Your task to perform on an android device: uninstall "Facebook Lite" Image 0: 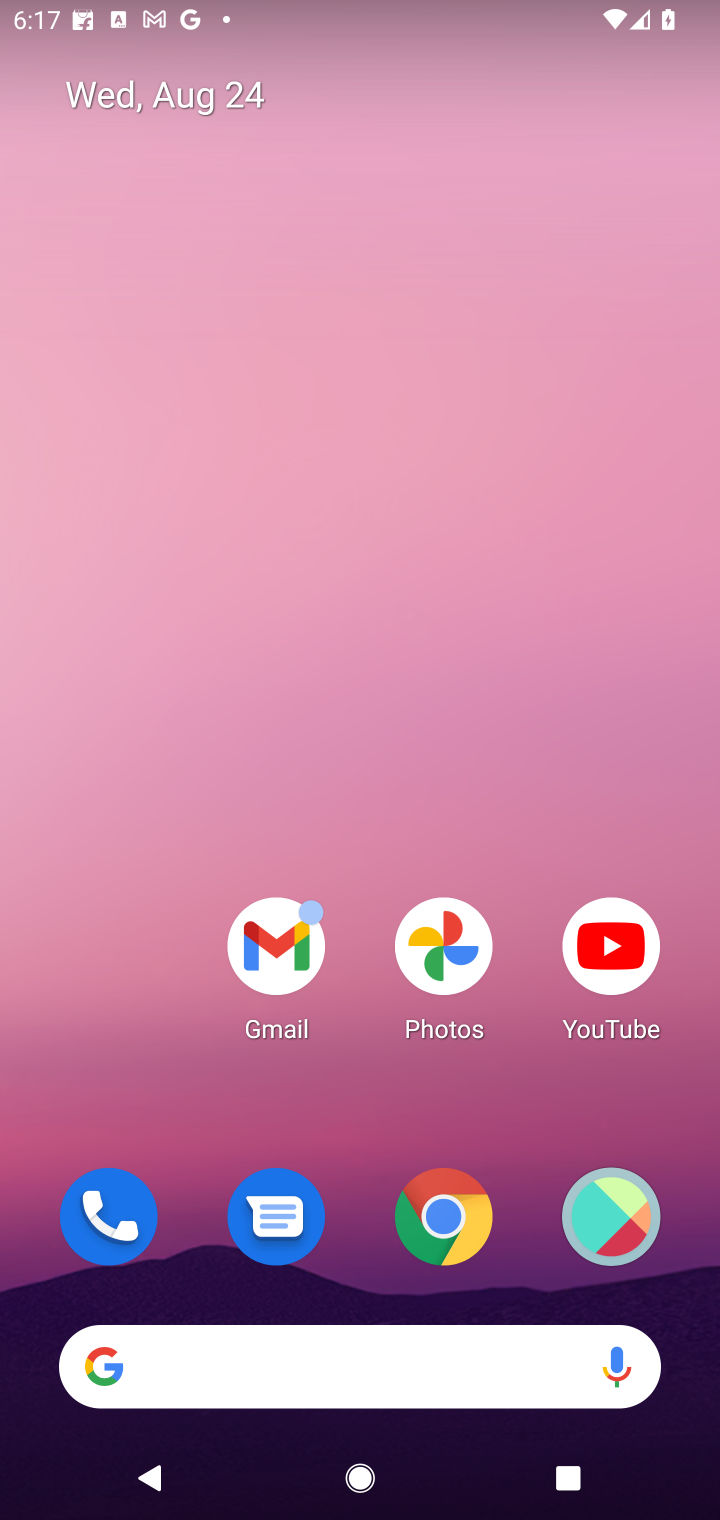
Step 0: drag from (365, 1095) to (379, 113)
Your task to perform on an android device: uninstall "Facebook Lite" Image 1: 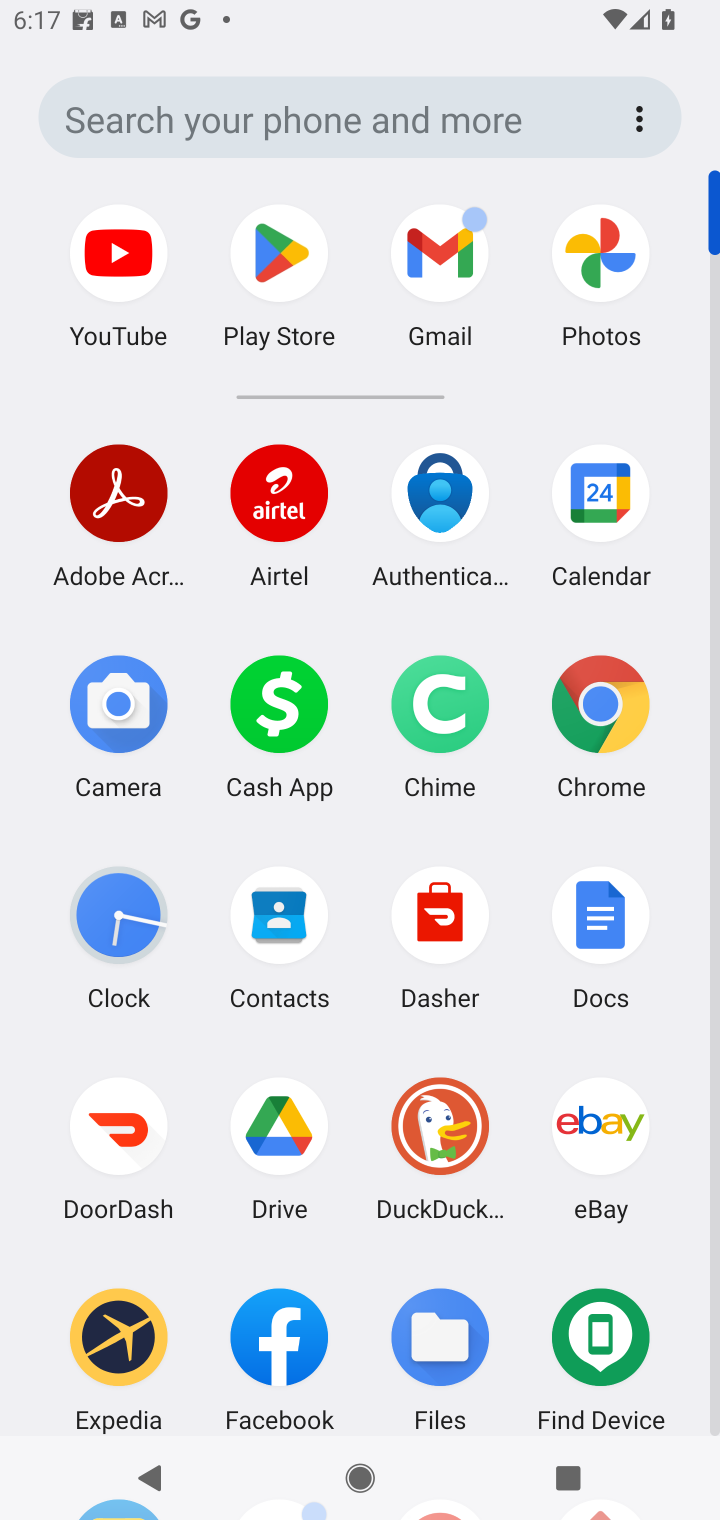
Step 1: click (301, 284)
Your task to perform on an android device: uninstall "Facebook Lite" Image 2: 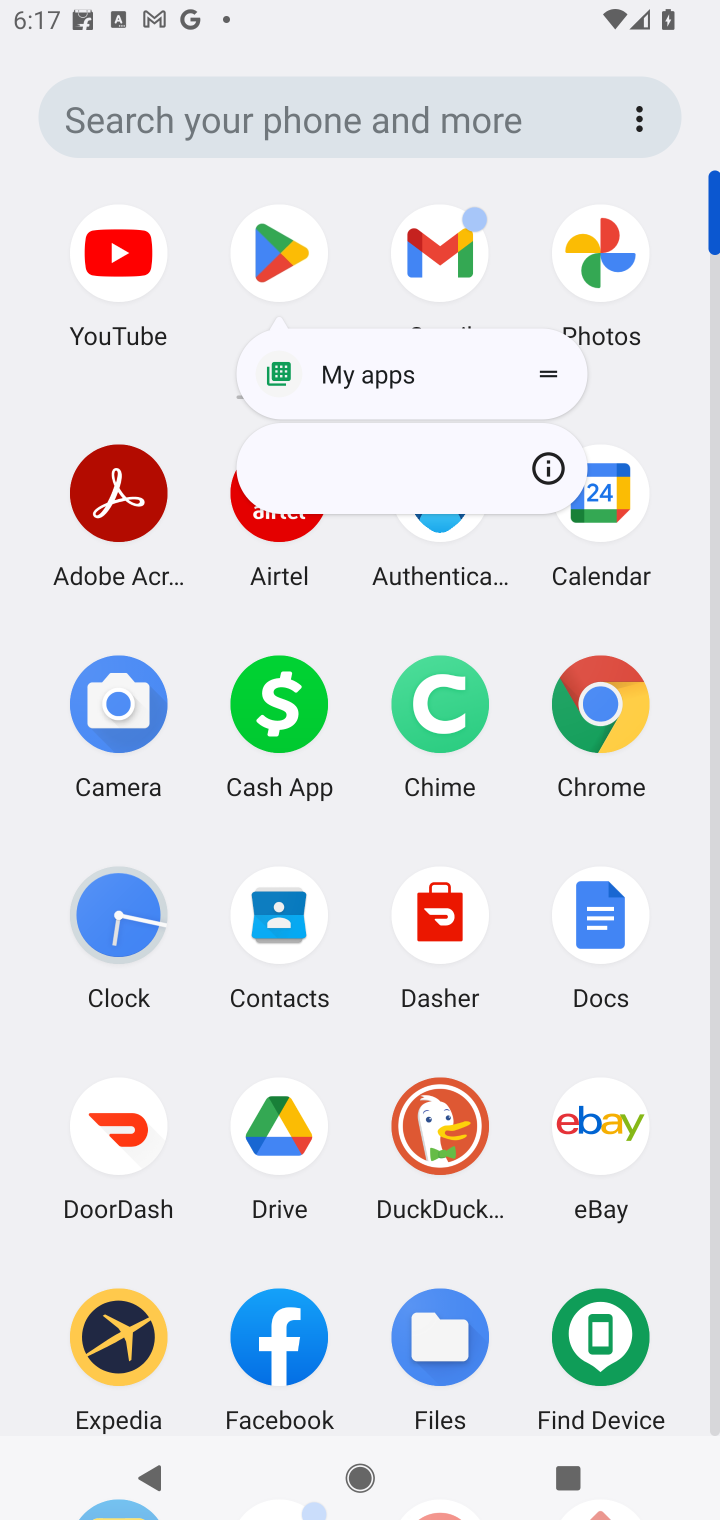
Step 2: click (283, 246)
Your task to perform on an android device: uninstall "Facebook Lite" Image 3: 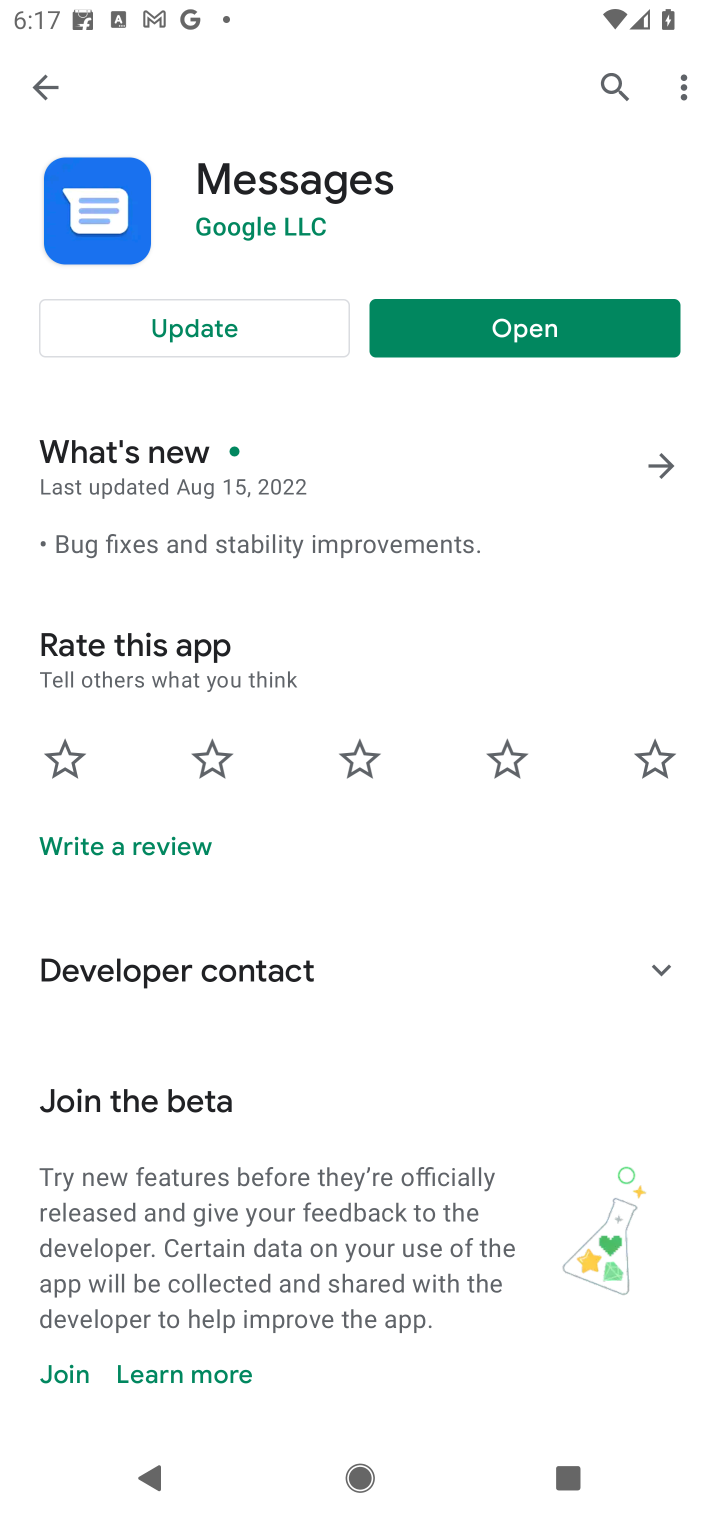
Step 3: click (626, 86)
Your task to perform on an android device: uninstall "Facebook Lite" Image 4: 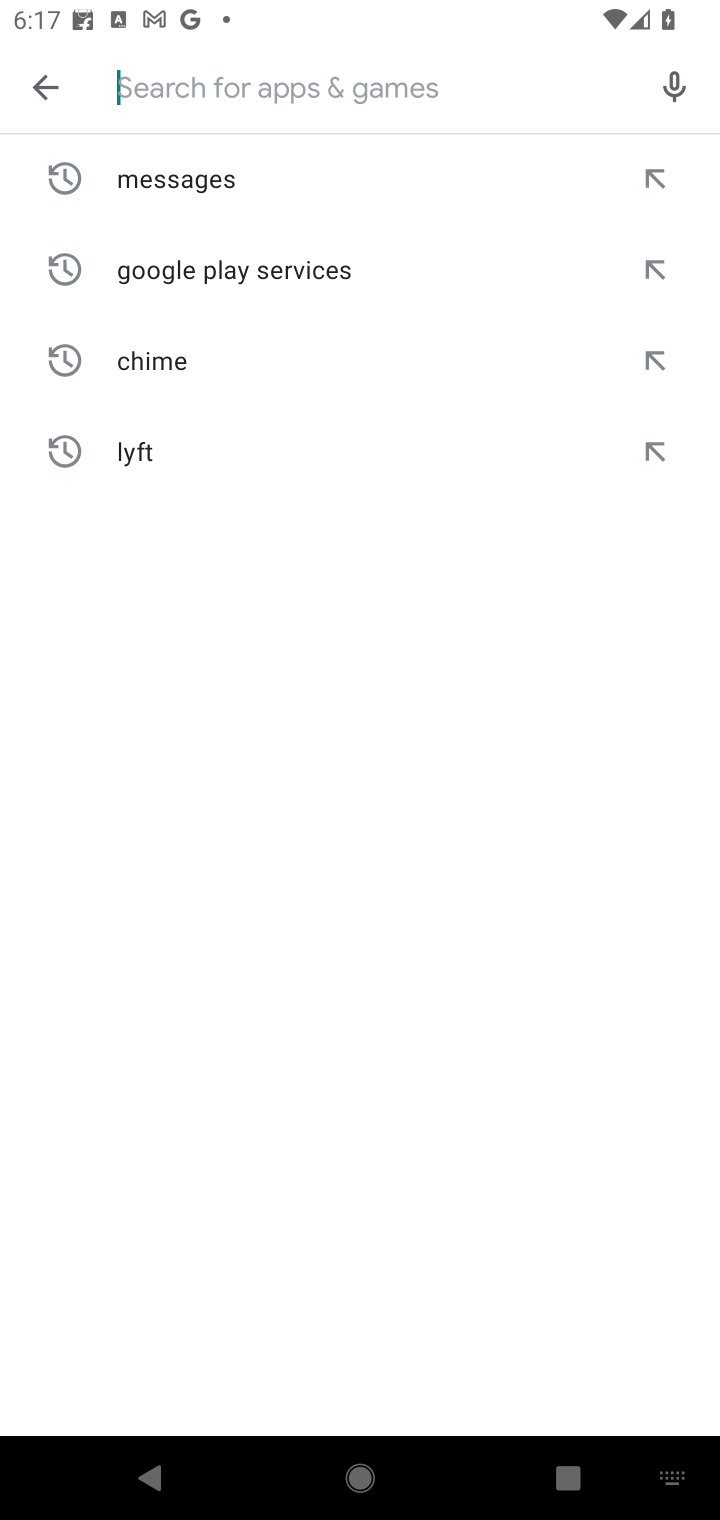
Step 4: type "Facebook Lite"
Your task to perform on an android device: uninstall "Facebook Lite" Image 5: 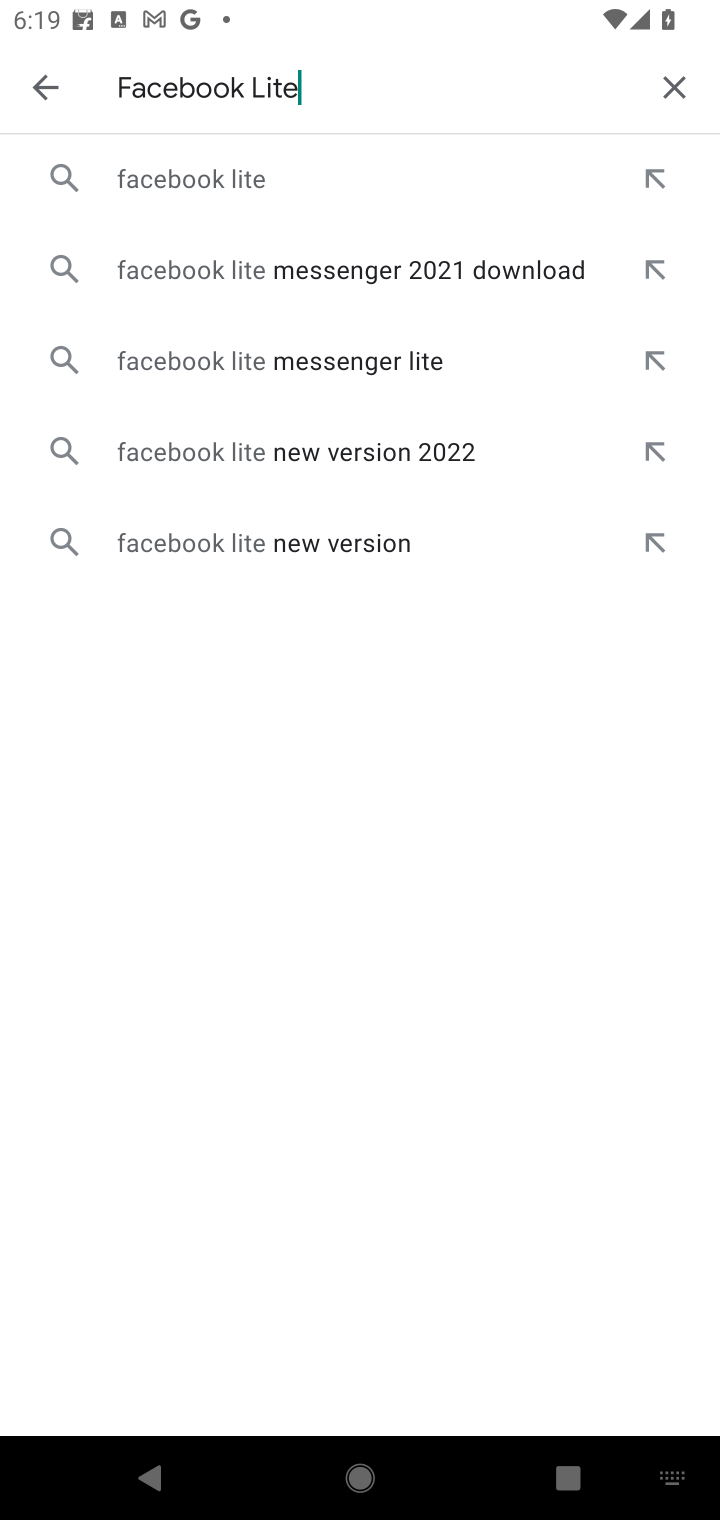
Step 5: click (324, 181)
Your task to perform on an android device: uninstall "Facebook Lite" Image 6: 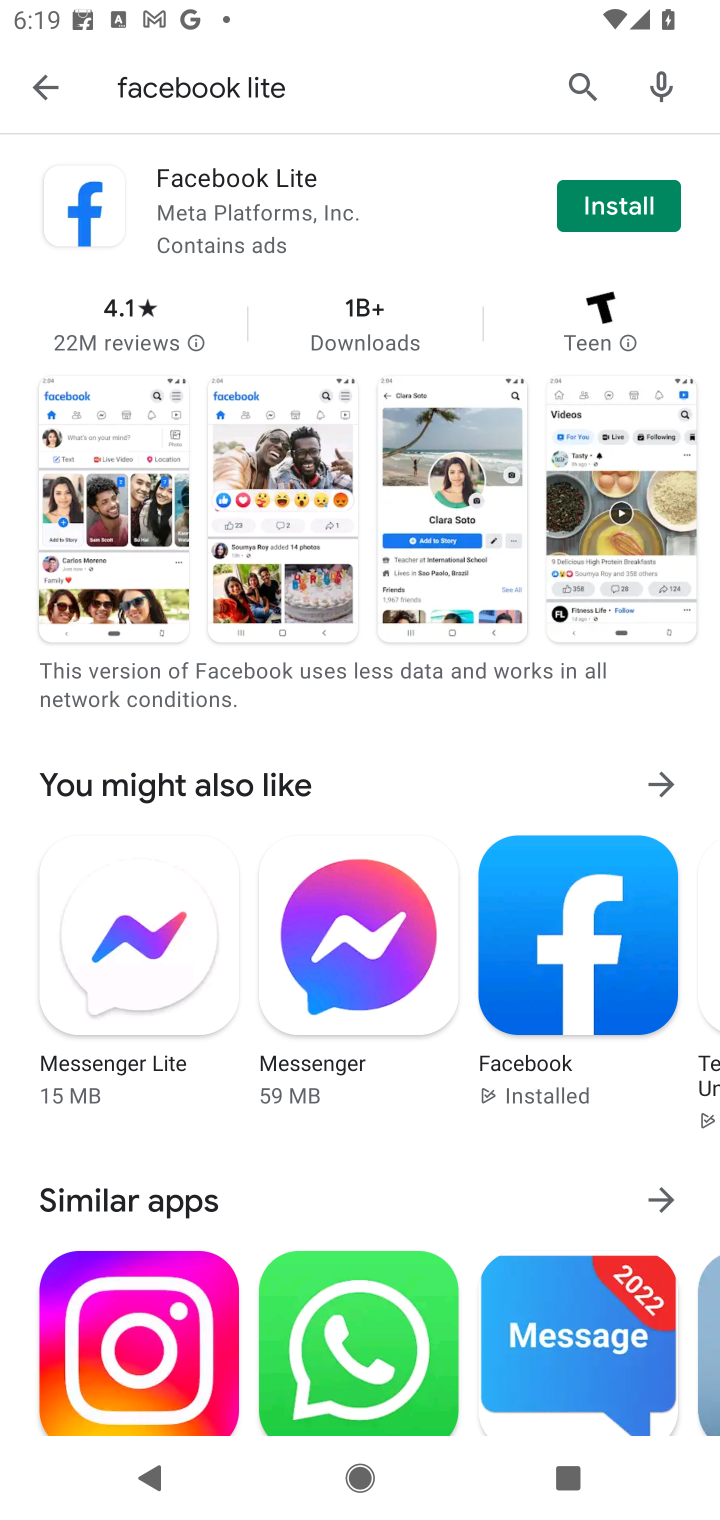
Step 6: task complete